Your task to perform on an android device: add a label to a message in the gmail app Image 0: 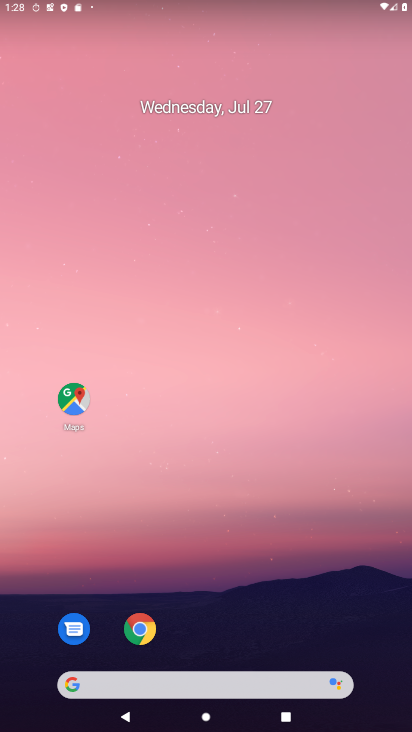
Step 0: drag from (343, 629) to (184, 57)
Your task to perform on an android device: add a label to a message in the gmail app Image 1: 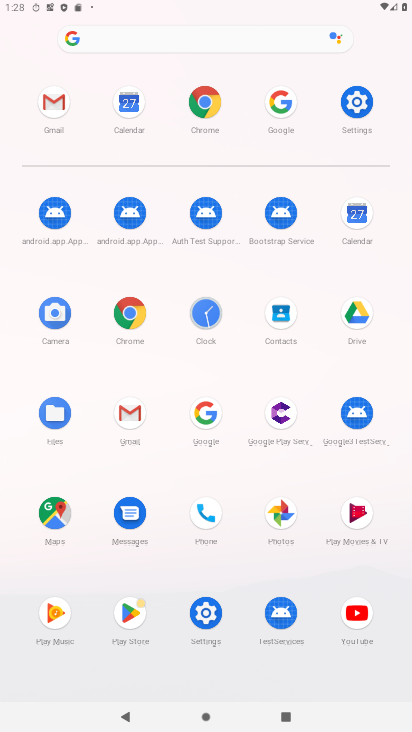
Step 1: click (127, 400)
Your task to perform on an android device: add a label to a message in the gmail app Image 2: 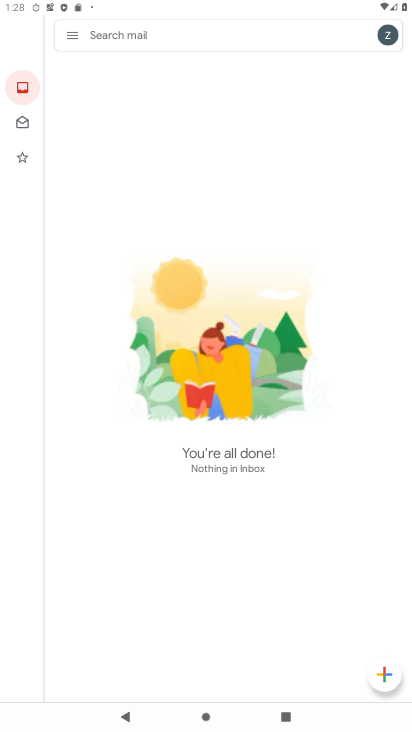
Step 2: task complete